Your task to perform on an android device: toggle wifi Image 0: 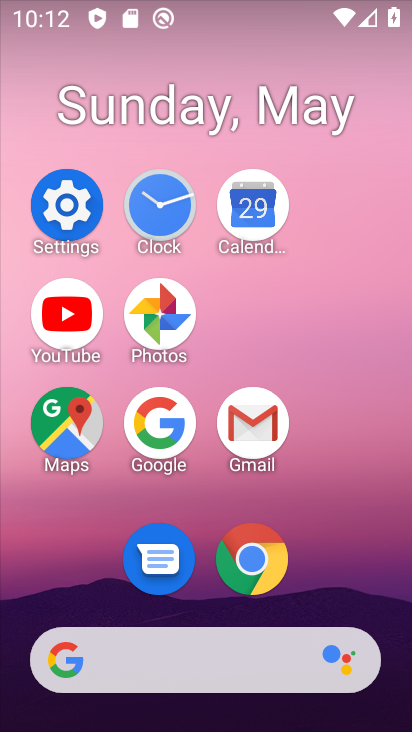
Step 0: click (94, 199)
Your task to perform on an android device: toggle wifi Image 1: 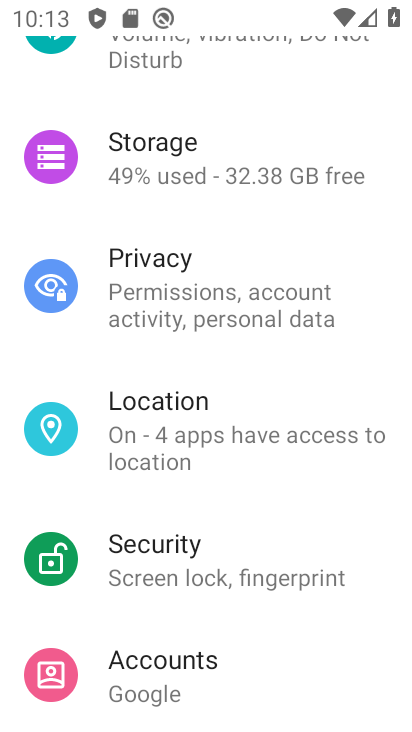
Step 1: drag from (298, 199) to (267, 588)
Your task to perform on an android device: toggle wifi Image 2: 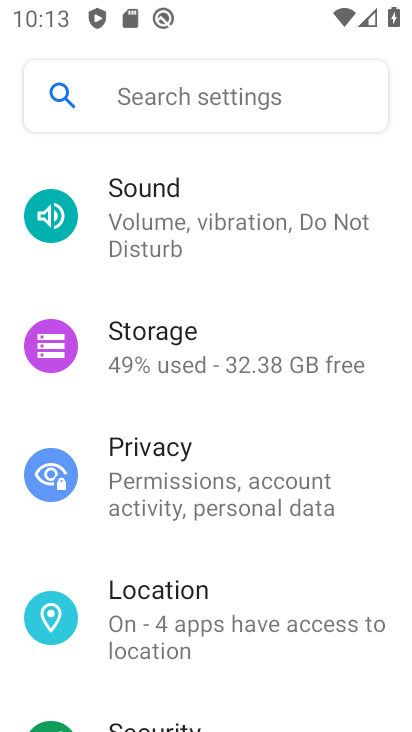
Step 2: drag from (294, 165) to (310, 731)
Your task to perform on an android device: toggle wifi Image 3: 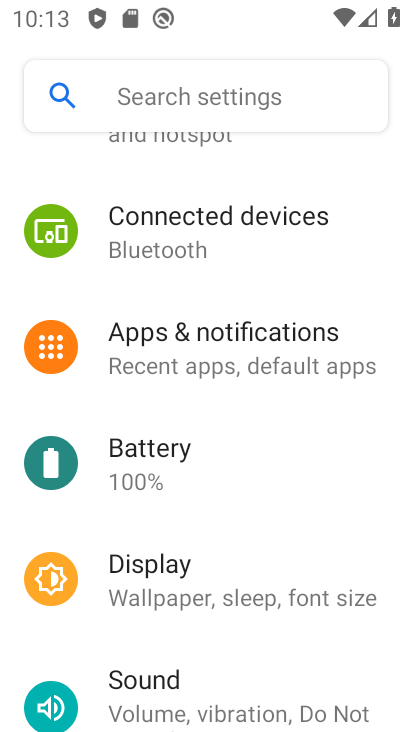
Step 3: drag from (251, 187) to (270, 554)
Your task to perform on an android device: toggle wifi Image 4: 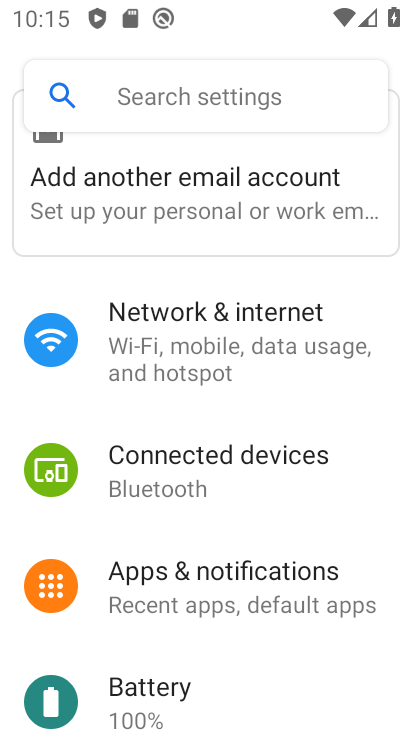
Step 4: click (226, 387)
Your task to perform on an android device: toggle wifi Image 5: 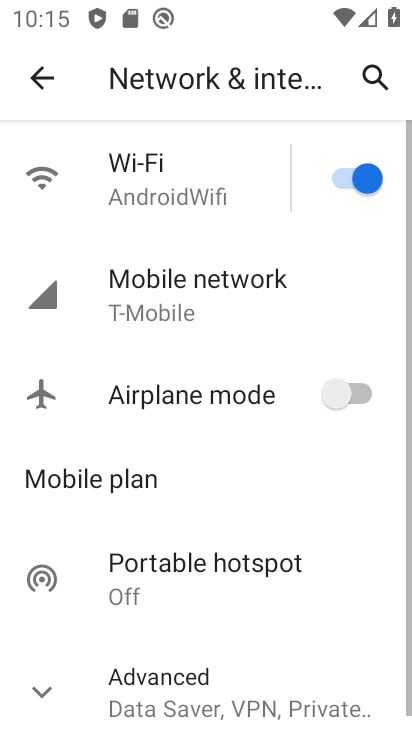
Step 5: click (338, 180)
Your task to perform on an android device: toggle wifi Image 6: 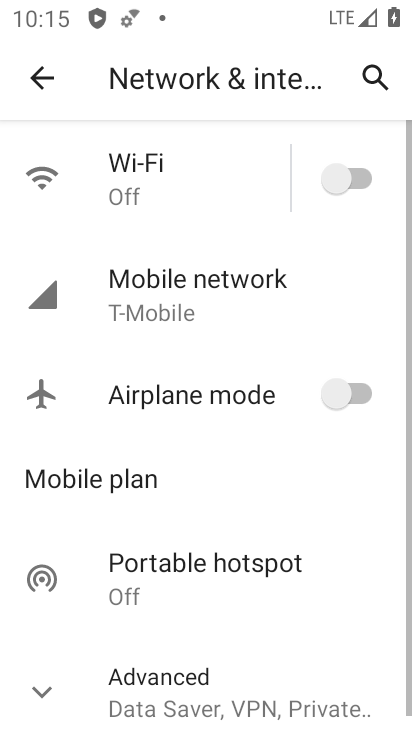
Step 6: task complete